Your task to perform on an android device: Do I have any events this weekend? Image 0: 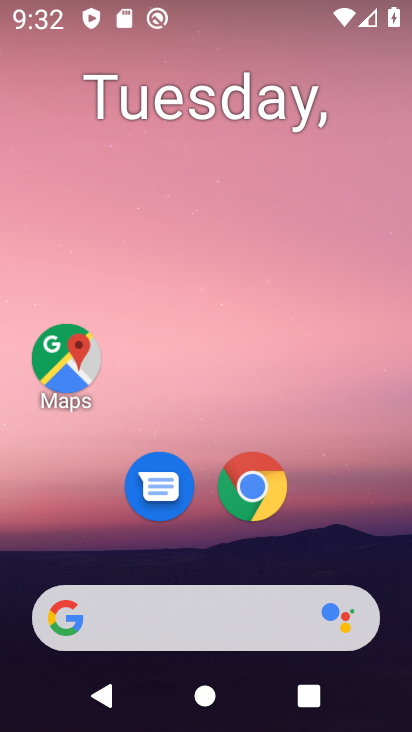
Step 0: press home button
Your task to perform on an android device: Do I have any events this weekend? Image 1: 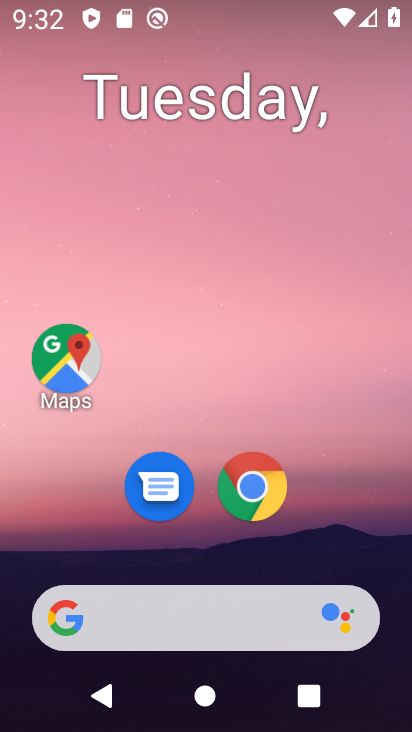
Step 1: drag from (371, 558) to (377, 207)
Your task to perform on an android device: Do I have any events this weekend? Image 2: 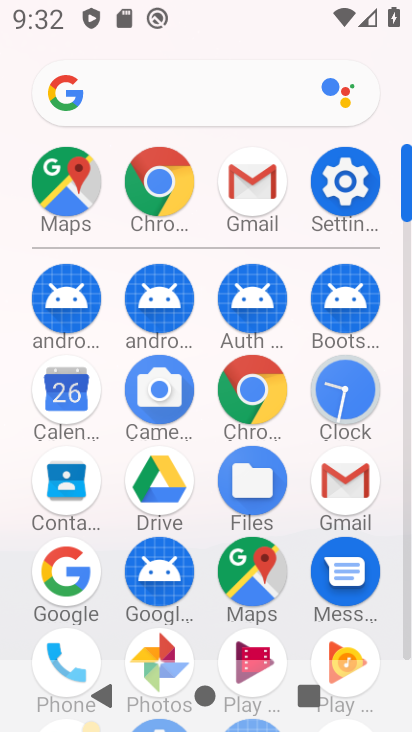
Step 2: click (74, 422)
Your task to perform on an android device: Do I have any events this weekend? Image 3: 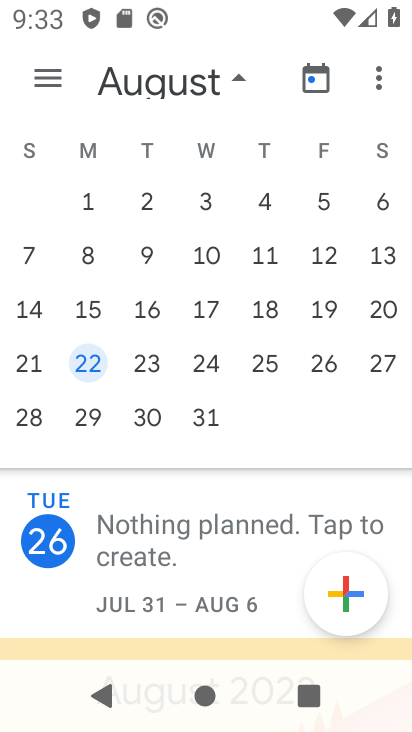
Step 3: click (212, 531)
Your task to perform on an android device: Do I have any events this weekend? Image 4: 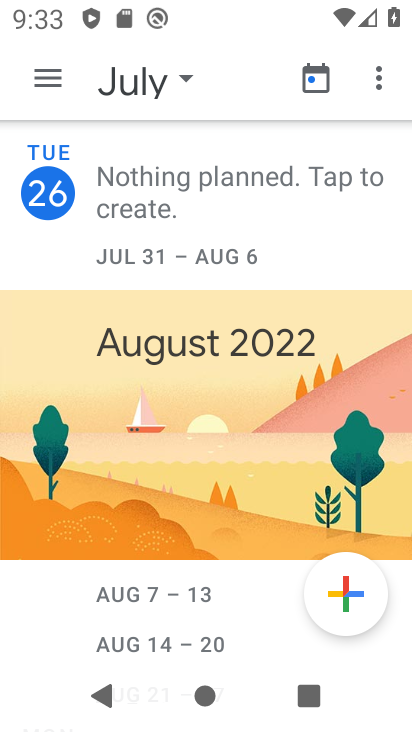
Step 4: task complete